Your task to perform on an android device: turn on the 24-hour format for clock Image 0: 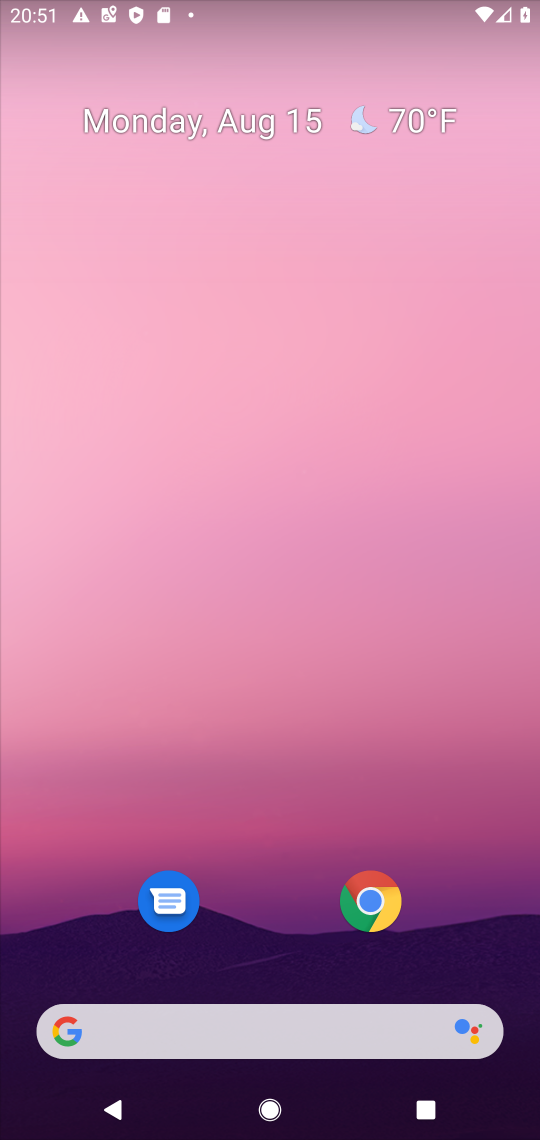
Step 0: drag from (248, 775) to (344, 17)
Your task to perform on an android device: turn on the 24-hour format for clock Image 1: 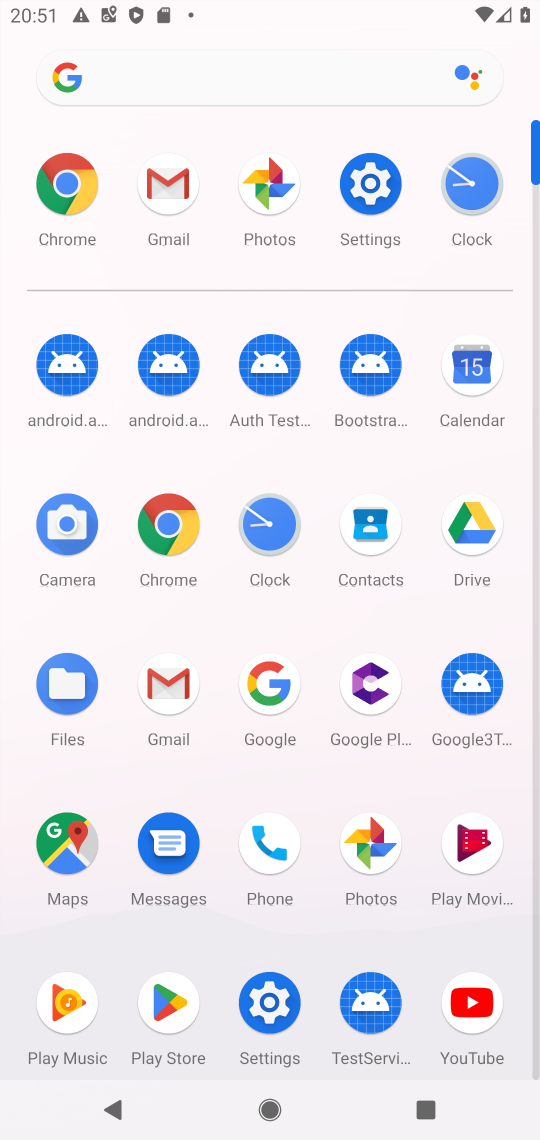
Step 1: click (257, 529)
Your task to perform on an android device: turn on the 24-hour format for clock Image 2: 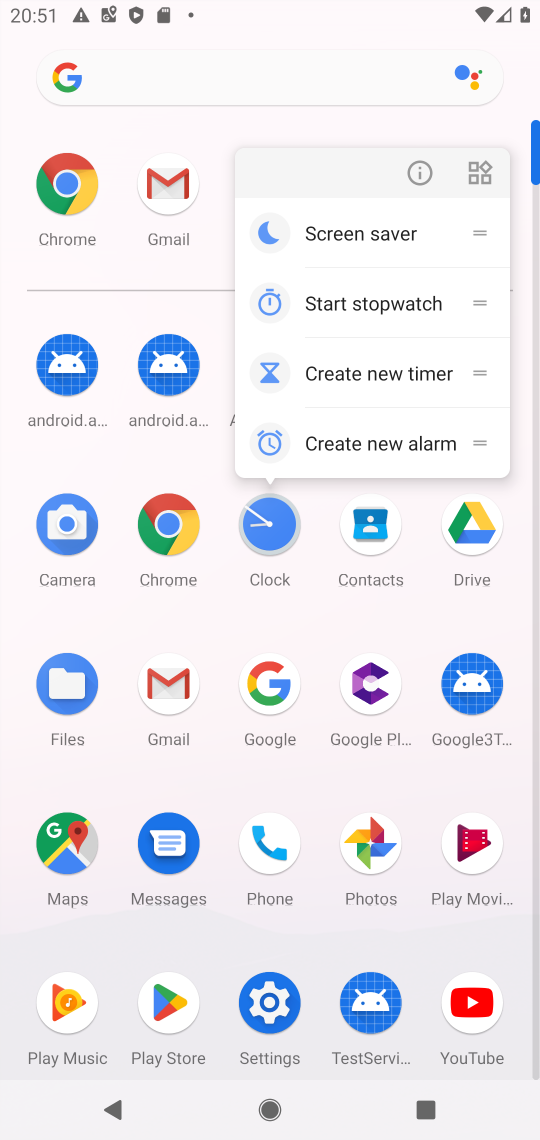
Step 2: click (264, 528)
Your task to perform on an android device: turn on the 24-hour format for clock Image 3: 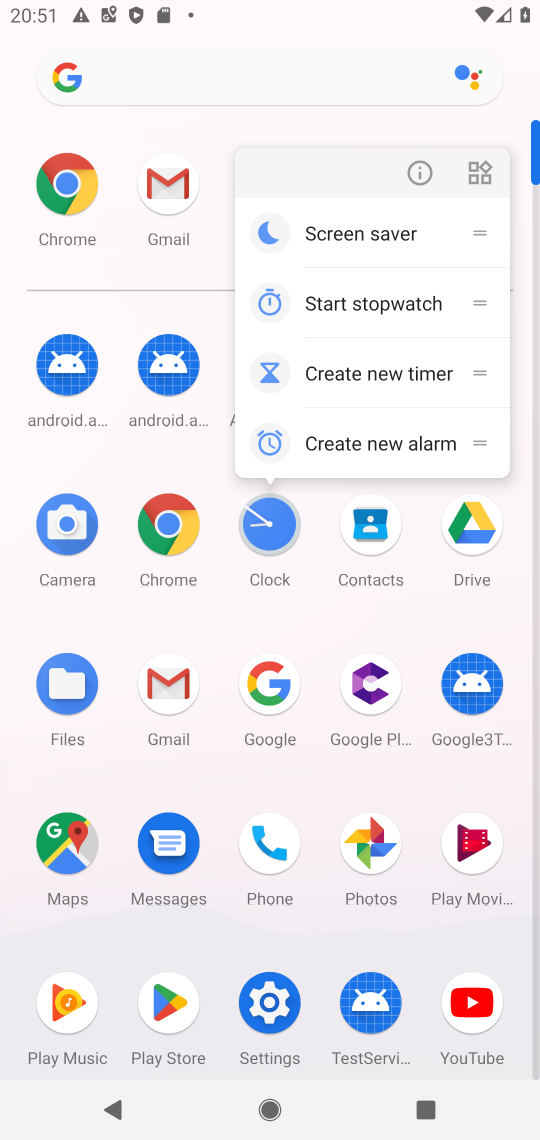
Step 3: click (278, 537)
Your task to perform on an android device: turn on the 24-hour format for clock Image 4: 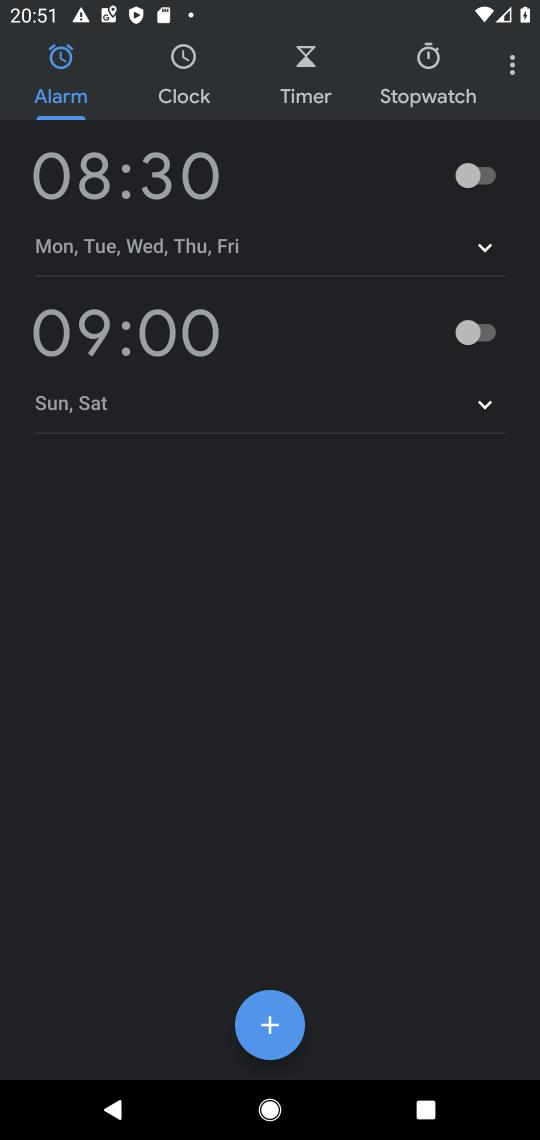
Step 4: press home button
Your task to perform on an android device: turn on the 24-hour format for clock Image 5: 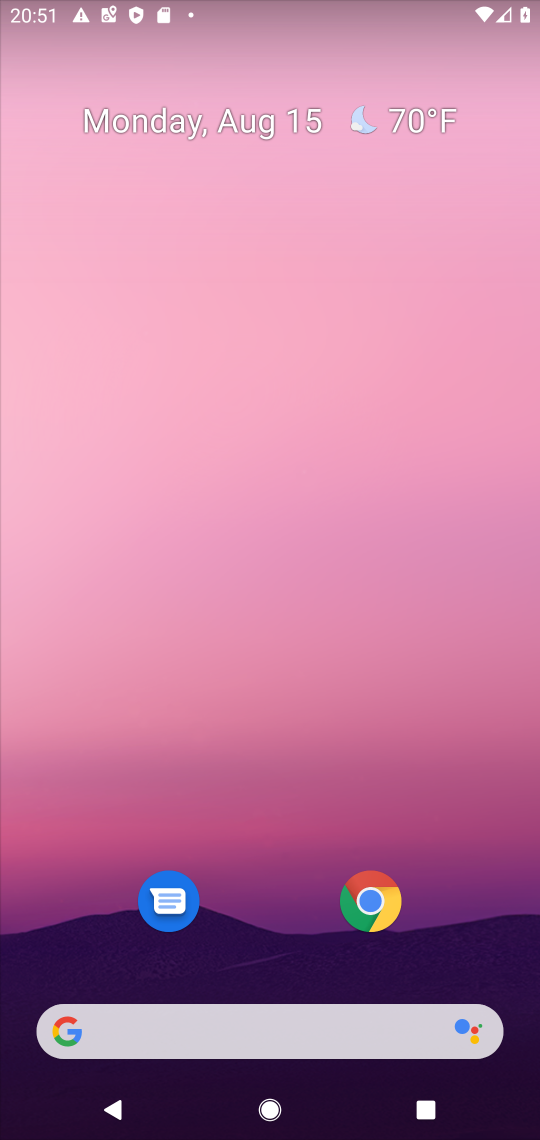
Step 5: drag from (252, 764) to (240, 116)
Your task to perform on an android device: turn on the 24-hour format for clock Image 6: 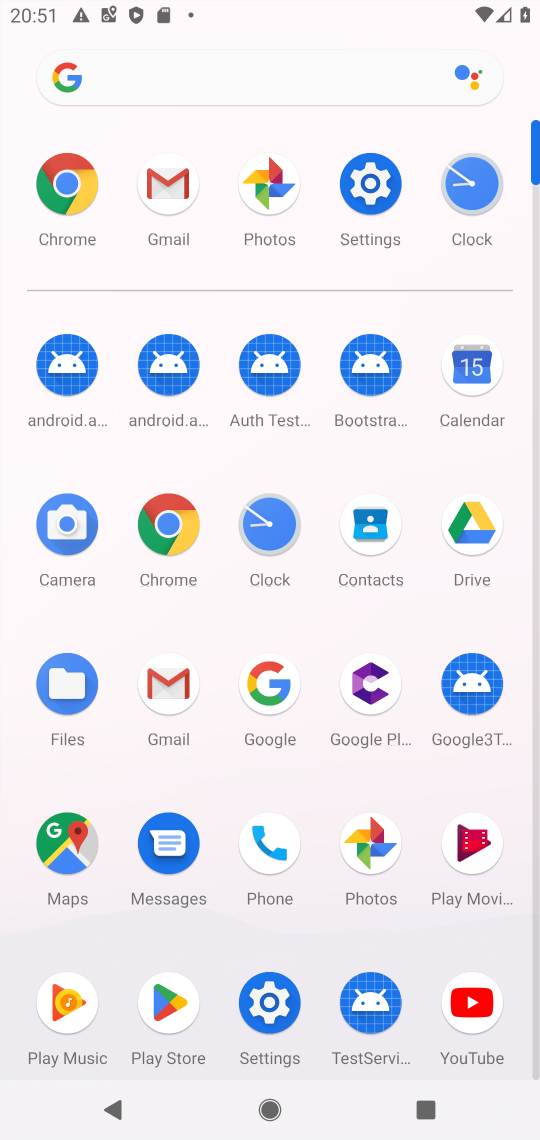
Step 6: click (268, 527)
Your task to perform on an android device: turn on the 24-hour format for clock Image 7: 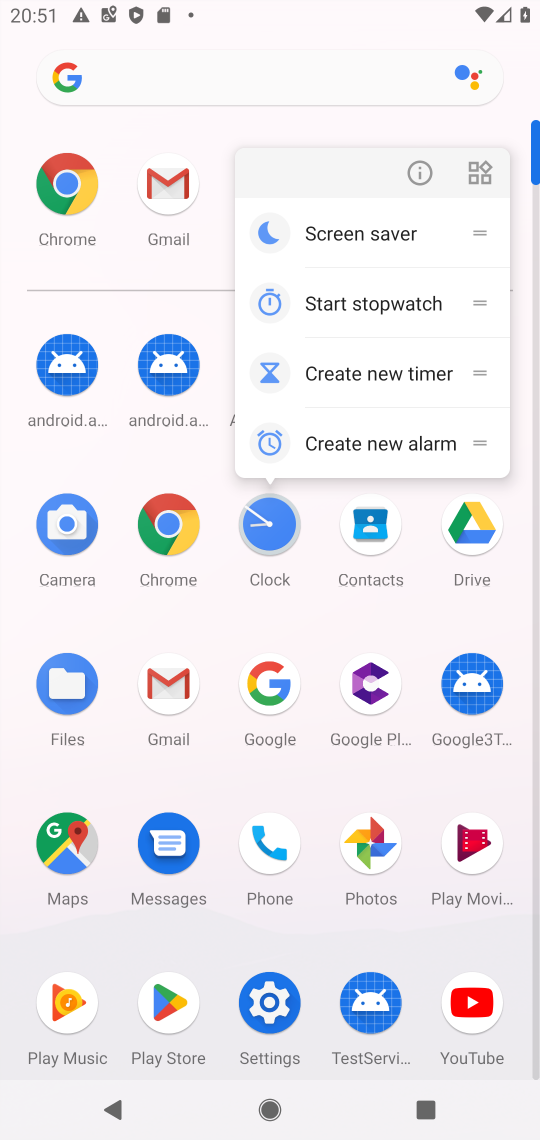
Step 7: click (269, 1005)
Your task to perform on an android device: turn on the 24-hour format for clock Image 8: 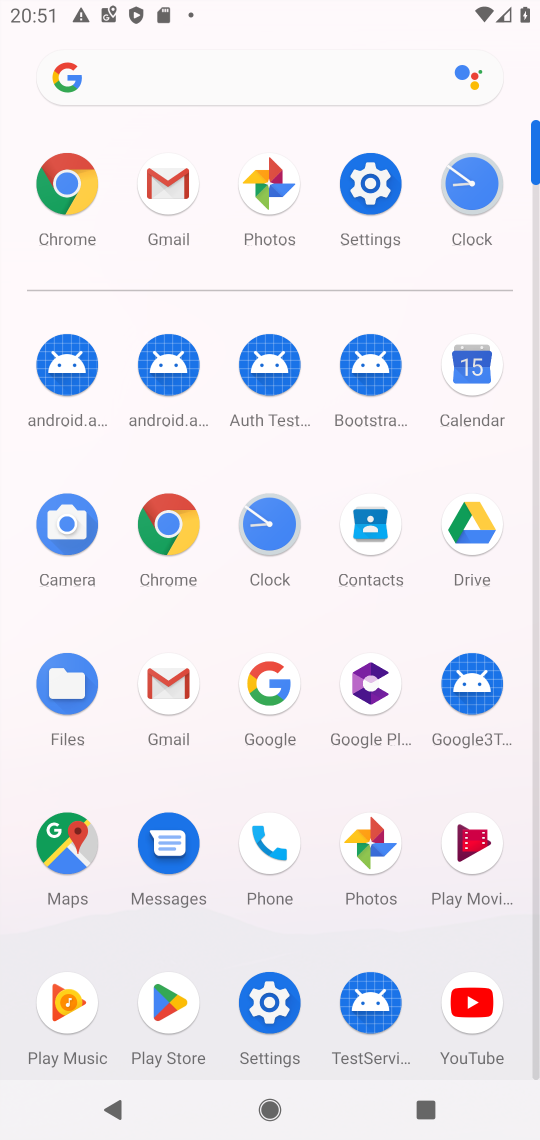
Step 8: click (263, 1017)
Your task to perform on an android device: turn on the 24-hour format for clock Image 9: 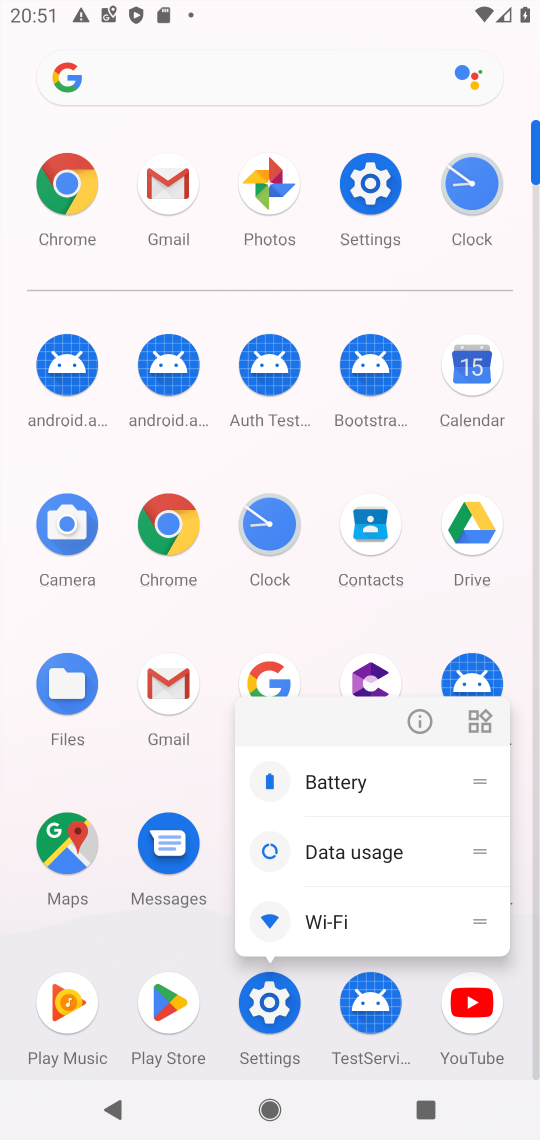
Step 9: click (266, 1022)
Your task to perform on an android device: turn on the 24-hour format for clock Image 10: 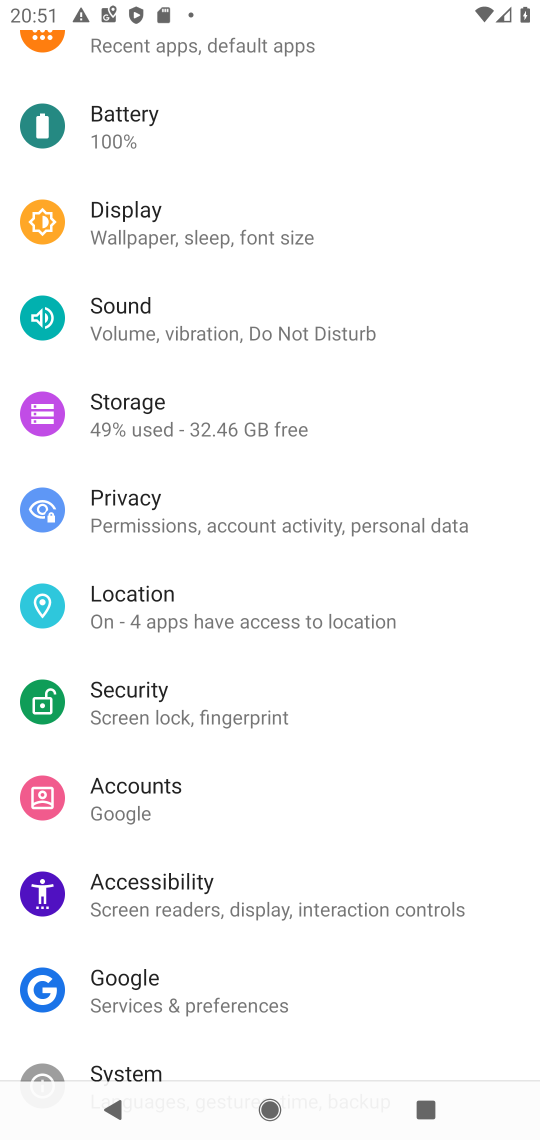
Step 10: drag from (193, 980) to (211, 428)
Your task to perform on an android device: turn on the 24-hour format for clock Image 11: 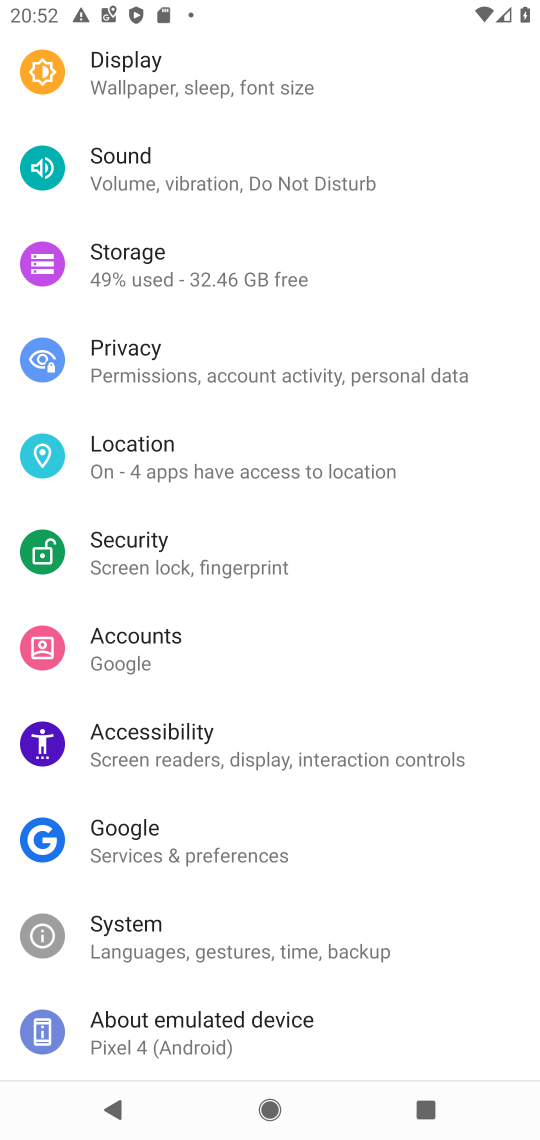
Step 11: click (190, 943)
Your task to perform on an android device: turn on the 24-hour format for clock Image 12: 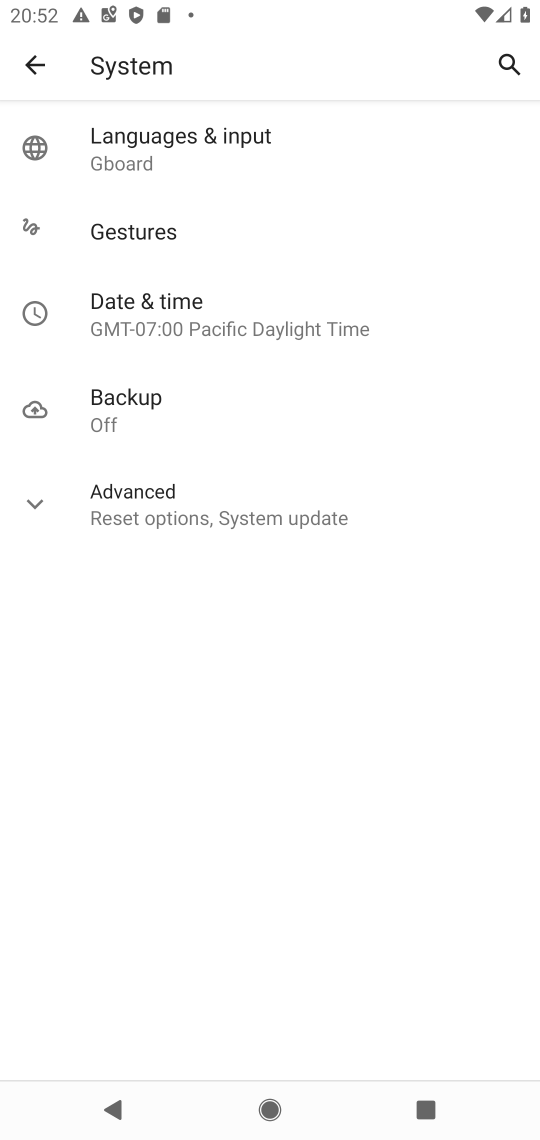
Step 12: click (154, 306)
Your task to perform on an android device: turn on the 24-hour format for clock Image 13: 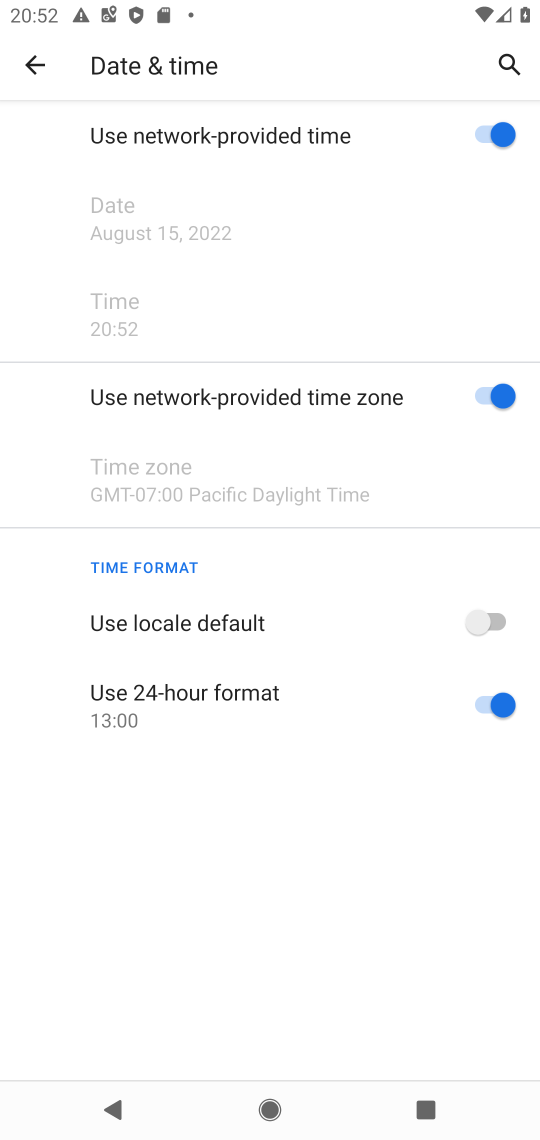
Step 13: task complete